Your task to perform on an android device: check android version Image 0: 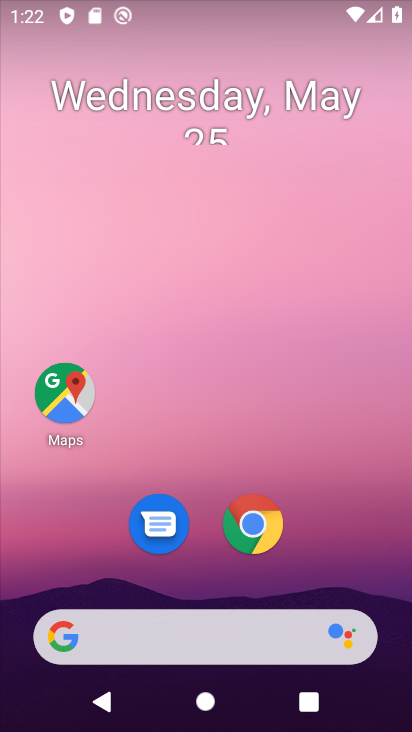
Step 0: drag from (316, 536) to (281, 3)
Your task to perform on an android device: check android version Image 1: 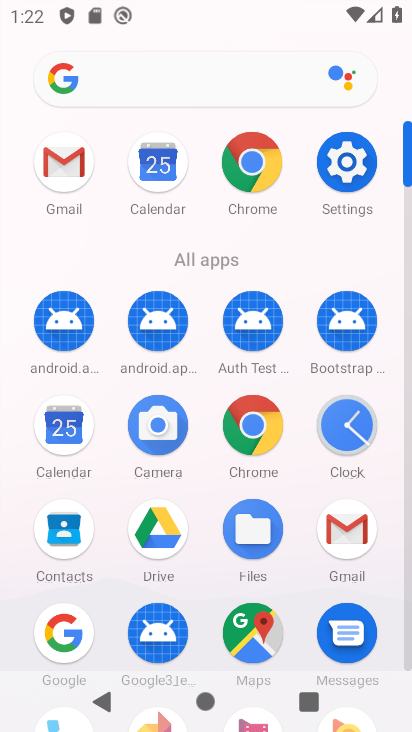
Step 1: click (341, 178)
Your task to perform on an android device: check android version Image 2: 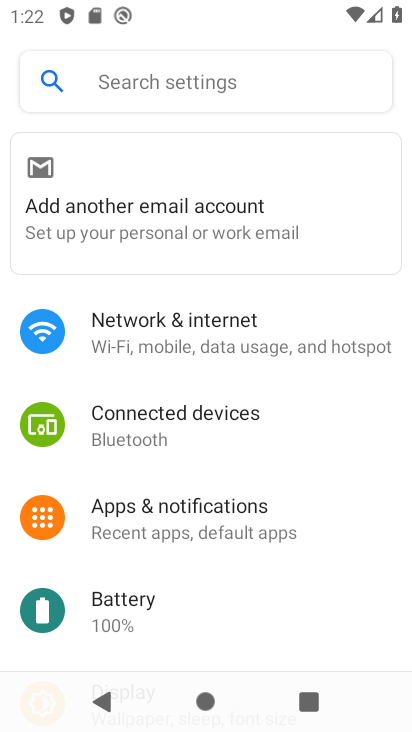
Step 2: drag from (230, 591) to (303, 1)
Your task to perform on an android device: check android version Image 3: 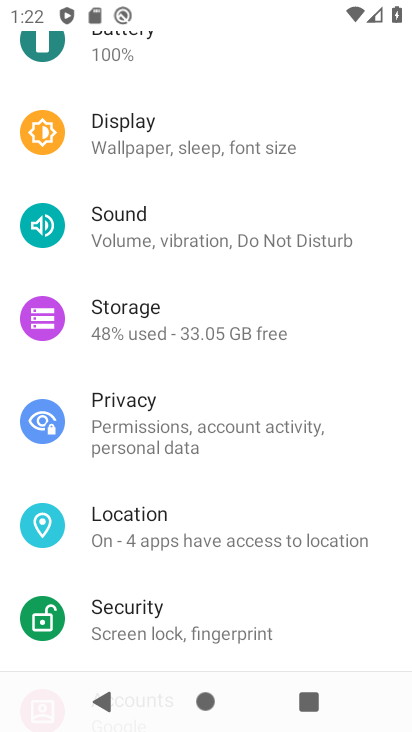
Step 3: drag from (238, 580) to (277, 59)
Your task to perform on an android device: check android version Image 4: 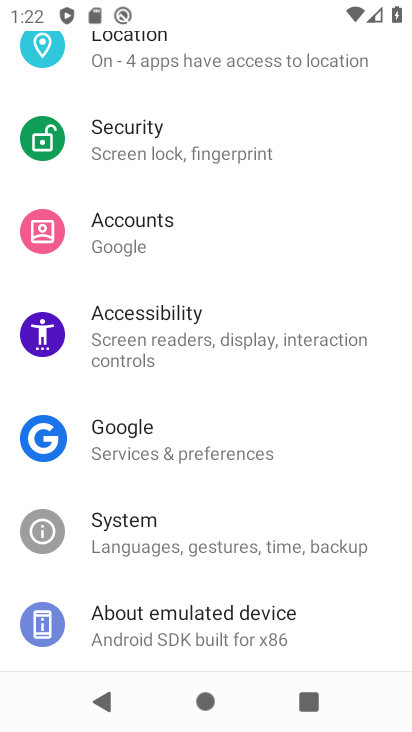
Step 4: click (222, 626)
Your task to perform on an android device: check android version Image 5: 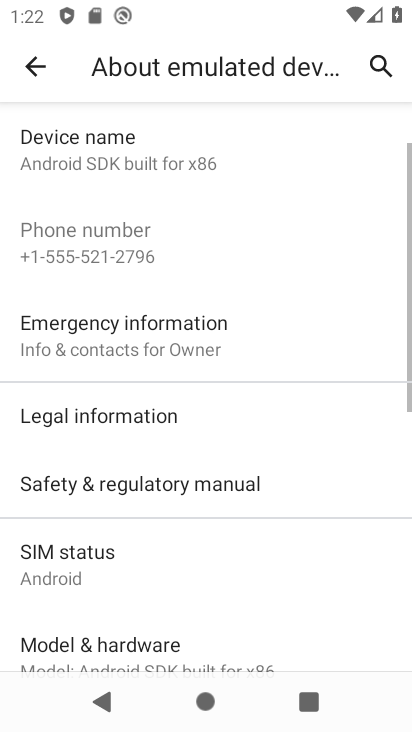
Step 5: drag from (222, 624) to (265, 202)
Your task to perform on an android device: check android version Image 6: 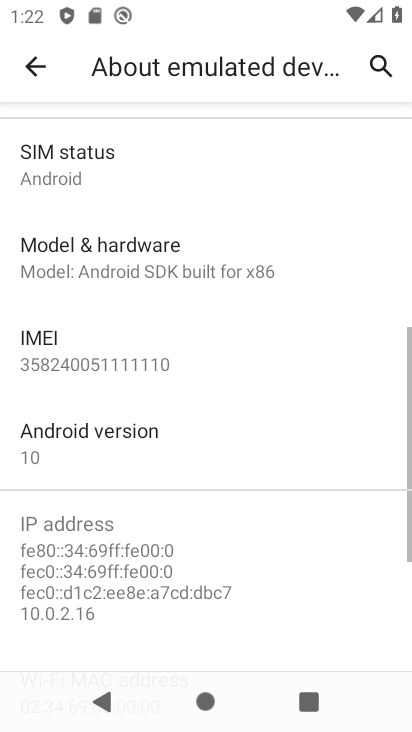
Step 6: click (190, 463)
Your task to perform on an android device: check android version Image 7: 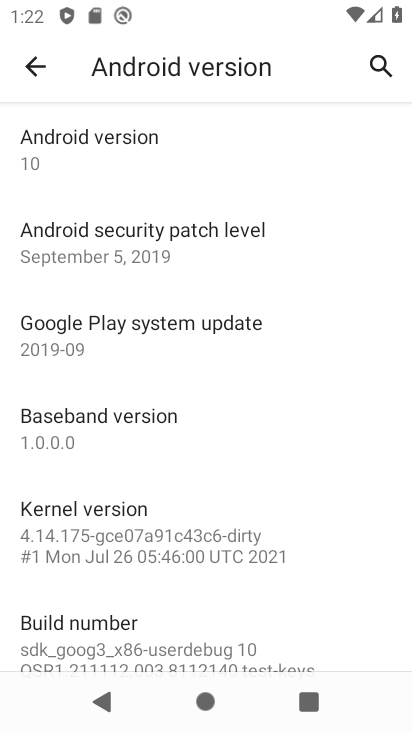
Step 7: task complete